Your task to perform on an android device: Open accessibility settings Image 0: 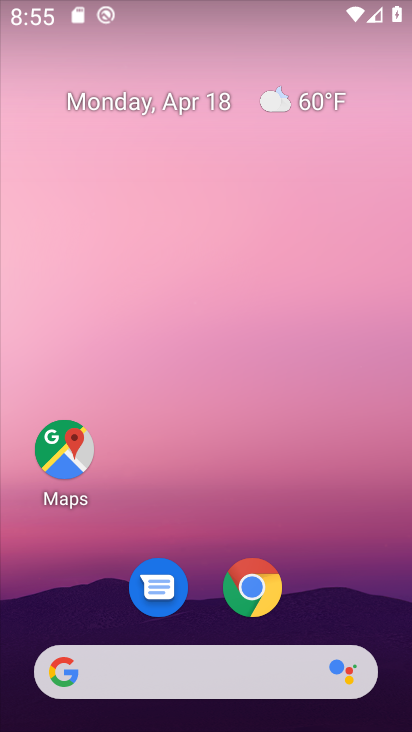
Step 0: drag from (327, 590) to (296, 116)
Your task to perform on an android device: Open accessibility settings Image 1: 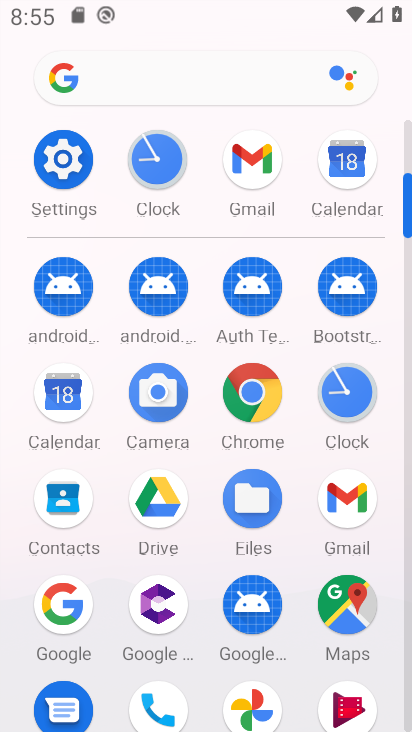
Step 1: click (63, 206)
Your task to perform on an android device: Open accessibility settings Image 2: 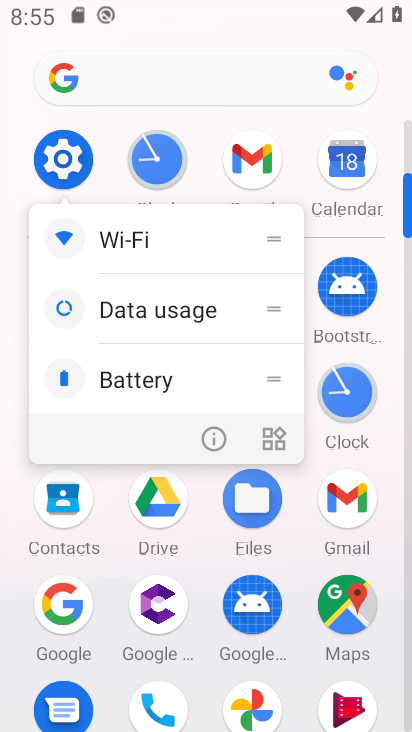
Step 2: click (67, 153)
Your task to perform on an android device: Open accessibility settings Image 3: 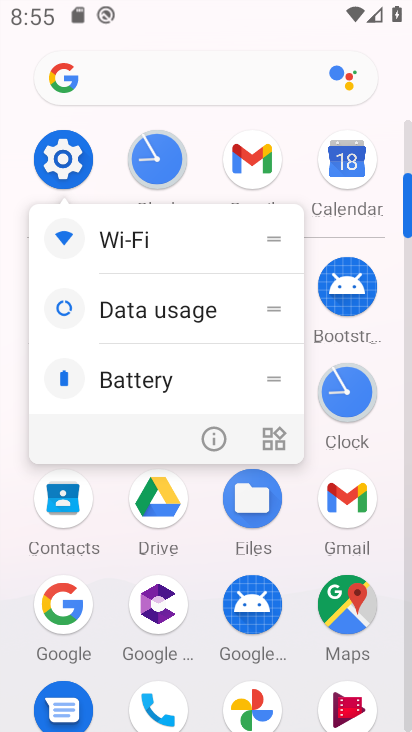
Step 3: click (67, 153)
Your task to perform on an android device: Open accessibility settings Image 4: 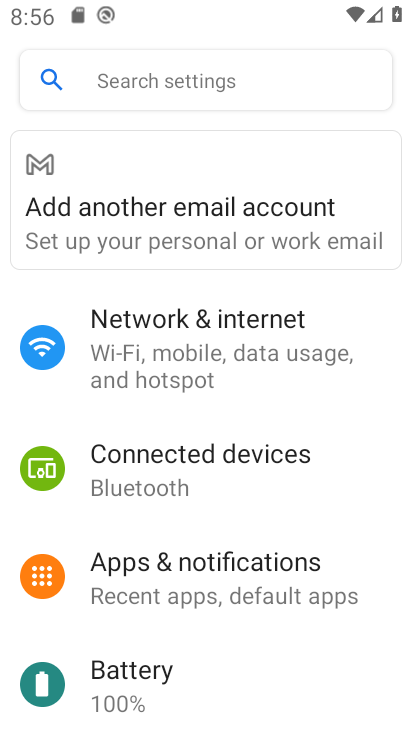
Step 4: drag from (158, 698) to (200, 113)
Your task to perform on an android device: Open accessibility settings Image 5: 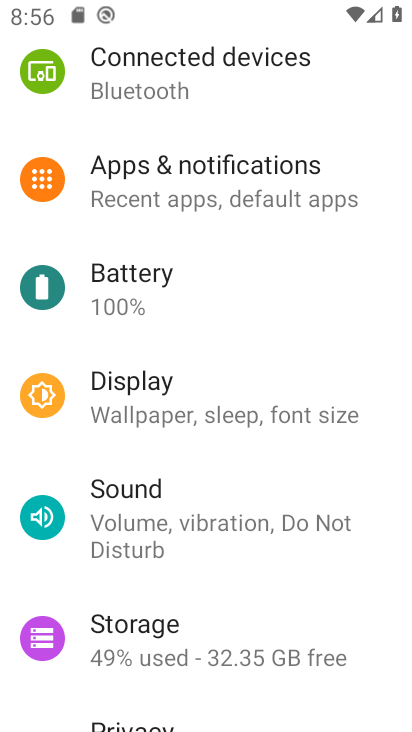
Step 5: drag from (218, 608) to (199, 297)
Your task to perform on an android device: Open accessibility settings Image 6: 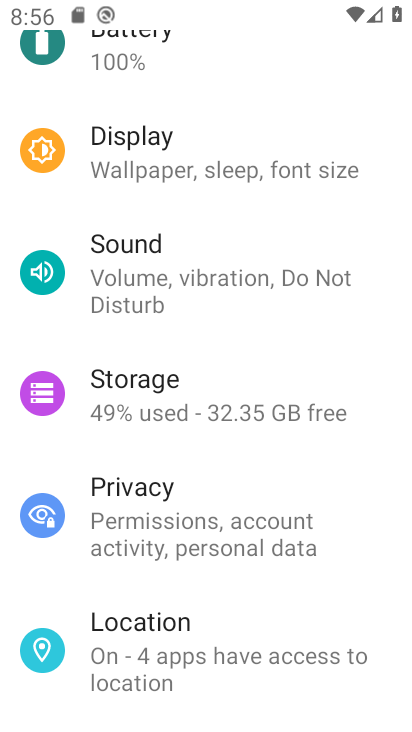
Step 6: drag from (210, 625) to (199, 259)
Your task to perform on an android device: Open accessibility settings Image 7: 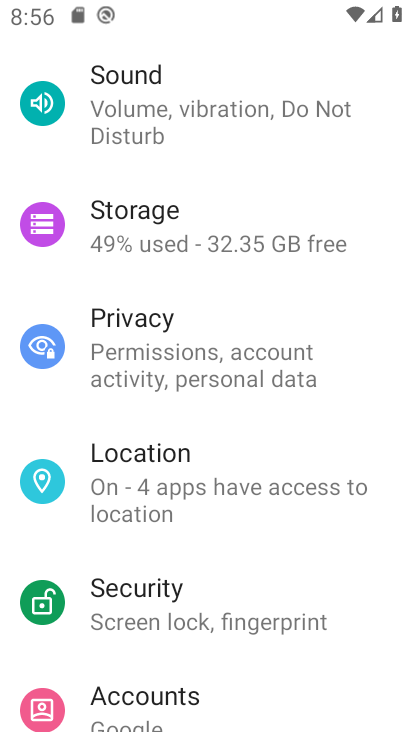
Step 7: drag from (193, 662) to (153, 181)
Your task to perform on an android device: Open accessibility settings Image 8: 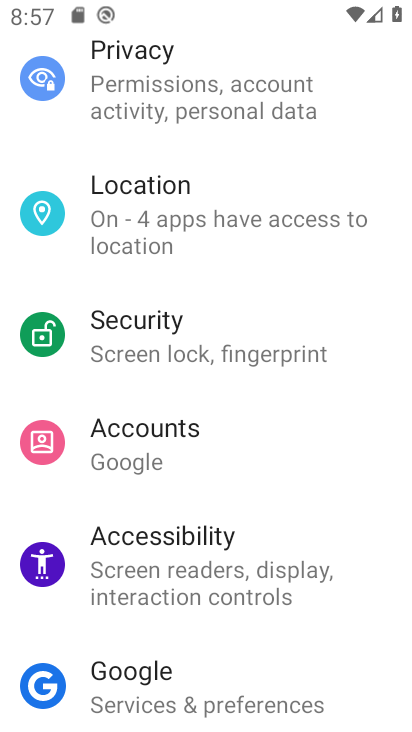
Step 8: click (181, 559)
Your task to perform on an android device: Open accessibility settings Image 9: 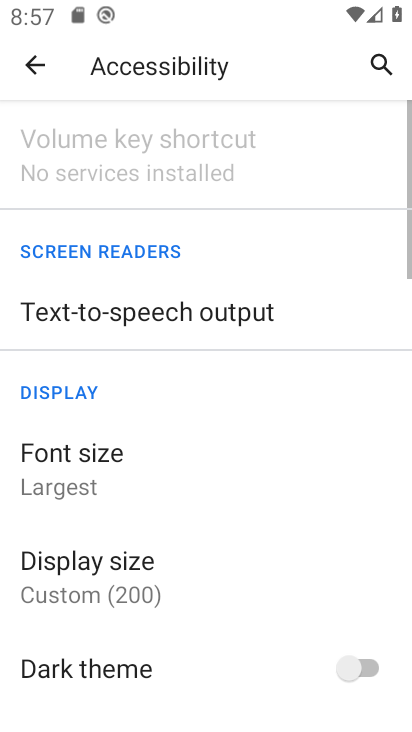
Step 9: task complete